Your task to perform on an android device: delete the emails in spam in the gmail app Image 0: 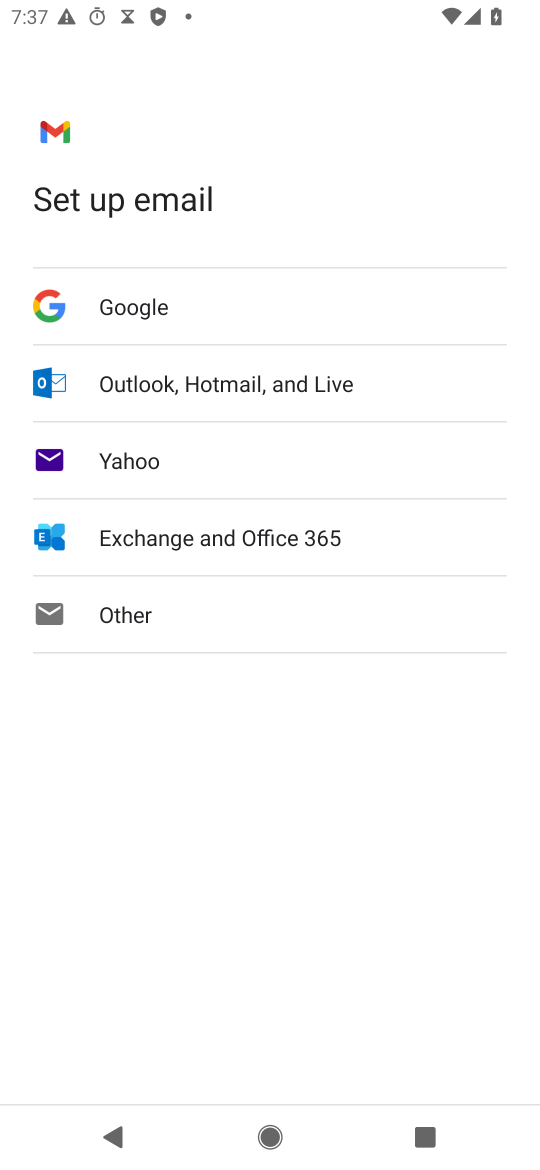
Step 0: press home button
Your task to perform on an android device: delete the emails in spam in the gmail app Image 1: 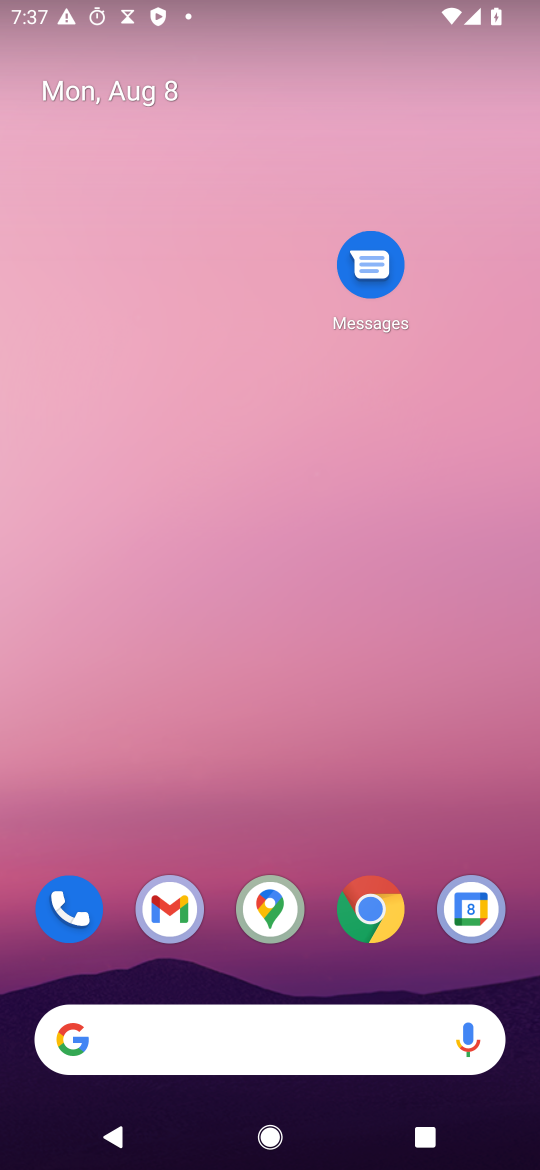
Step 1: drag from (270, 1016) to (421, 244)
Your task to perform on an android device: delete the emails in spam in the gmail app Image 2: 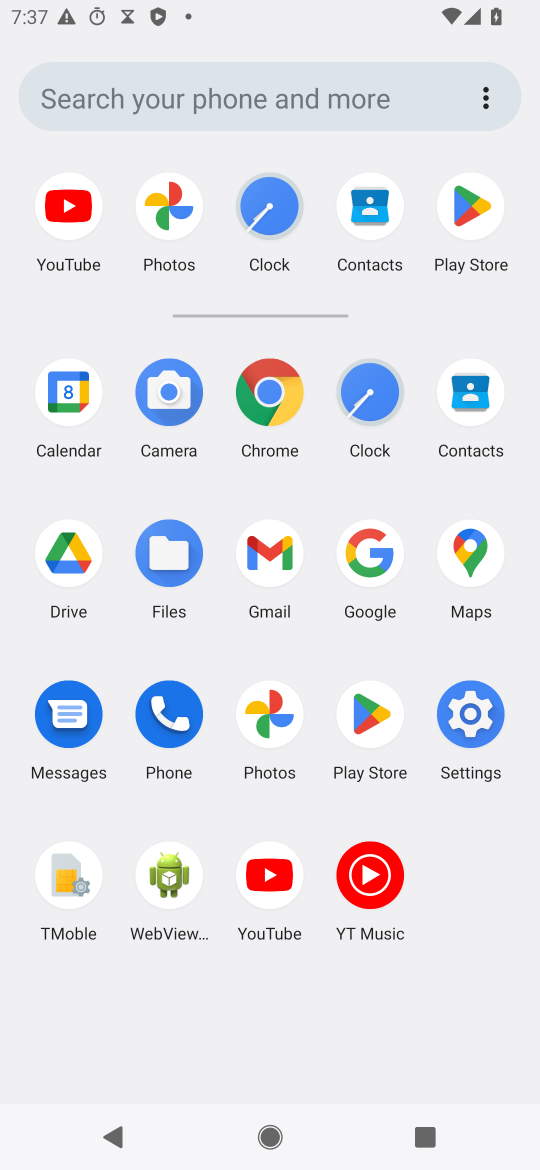
Step 2: click (267, 559)
Your task to perform on an android device: delete the emails in spam in the gmail app Image 3: 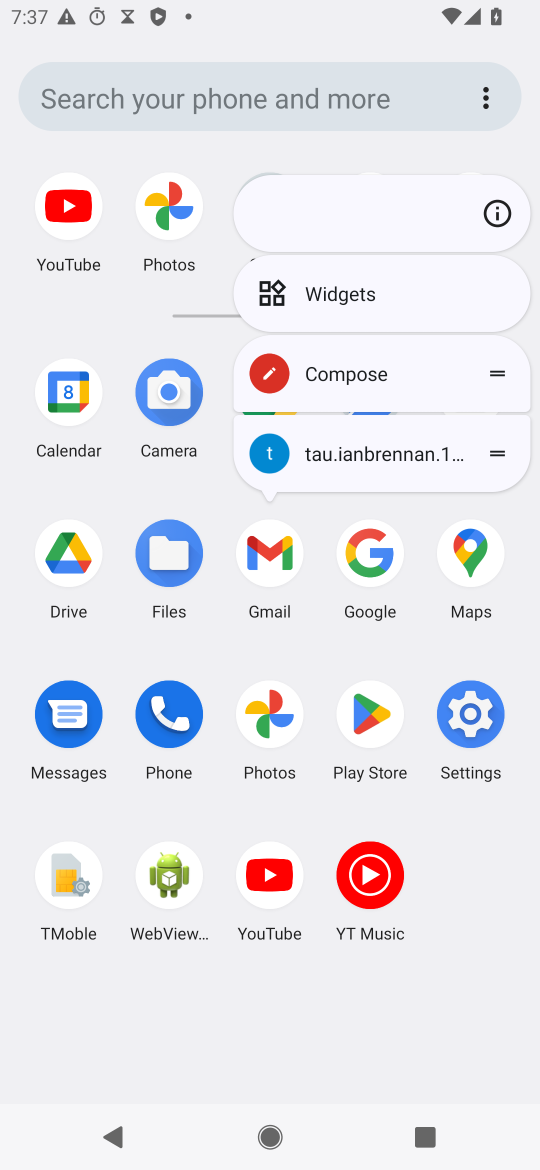
Step 3: click (267, 559)
Your task to perform on an android device: delete the emails in spam in the gmail app Image 4: 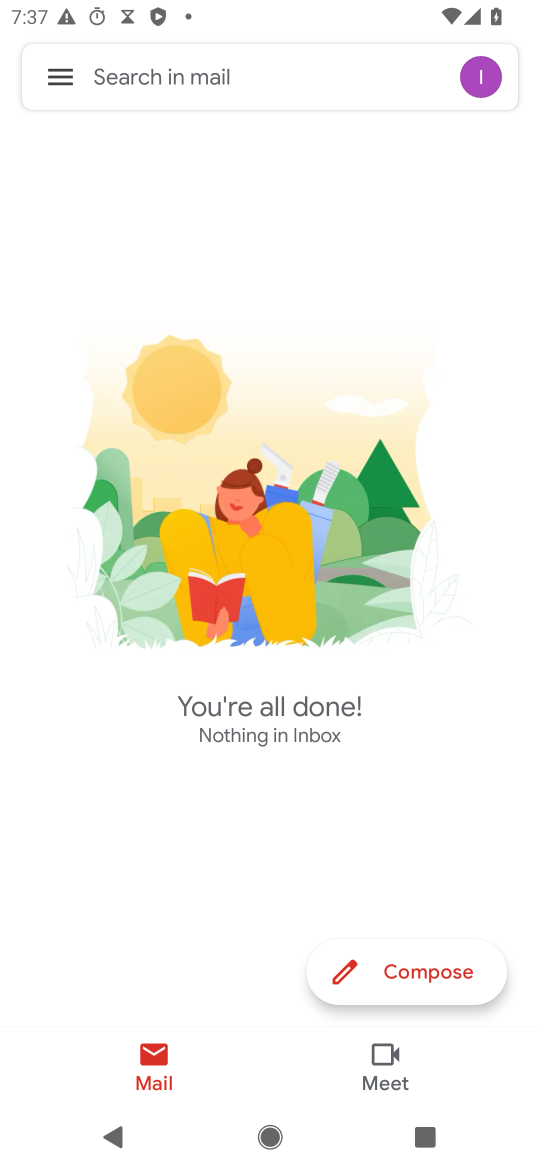
Step 4: task complete